Your task to perform on an android device: Show me recent news Image 0: 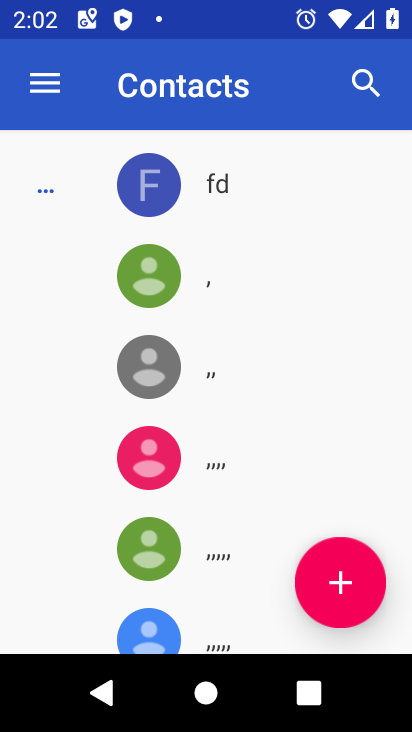
Step 0: press home button
Your task to perform on an android device: Show me recent news Image 1: 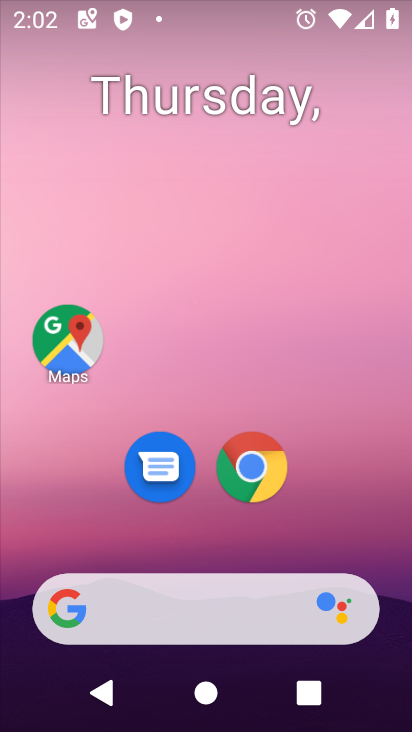
Step 1: drag from (318, 472) to (286, 195)
Your task to perform on an android device: Show me recent news Image 2: 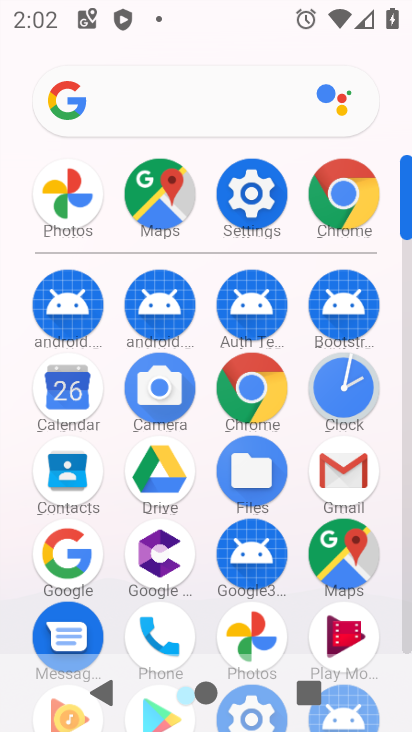
Step 2: click (274, 380)
Your task to perform on an android device: Show me recent news Image 3: 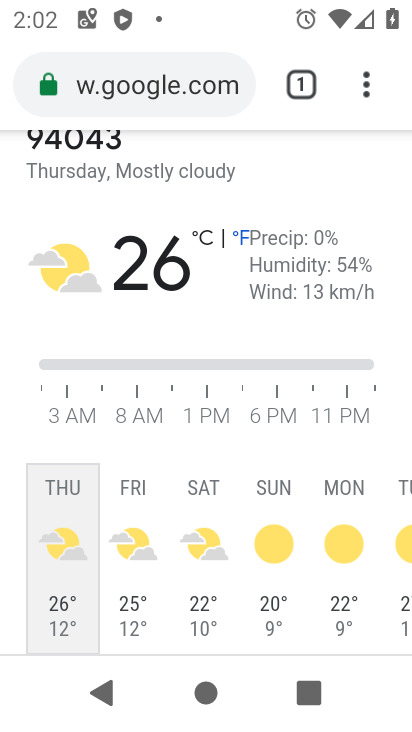
Step 3: click (195, 88)
Your task to perform on an android device: Show me recent news Image 4: 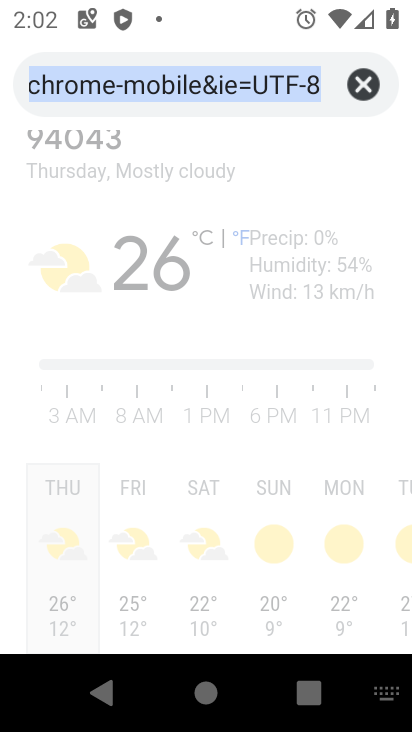
Step 4: click (363, 84)
Your task to perform on an android device: Show me recent news Image 5: 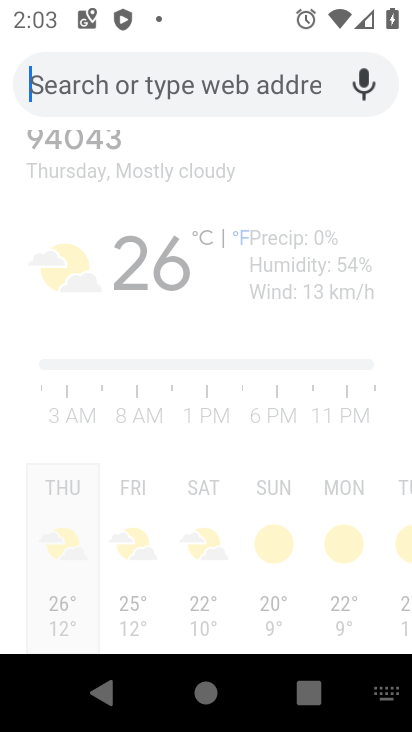
Step 5: type "show me recent news"
Your task to perform on an android device: Show me recent news Image 6: 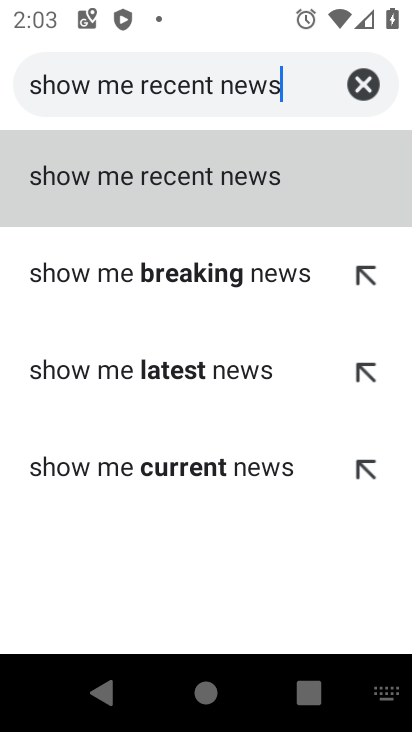
Step 6: click (252, 217)
Your task to perform on an android device: Show me recent news Image 7: 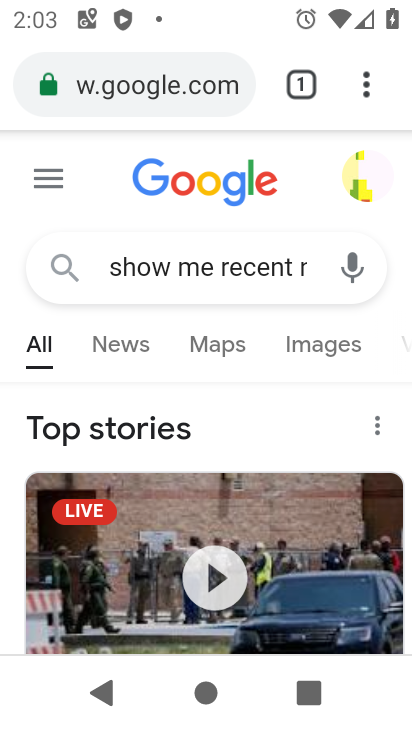
Step 7: task complete